Your task to perform on an android device: delete the emails in spam in the gmail app Image 0: 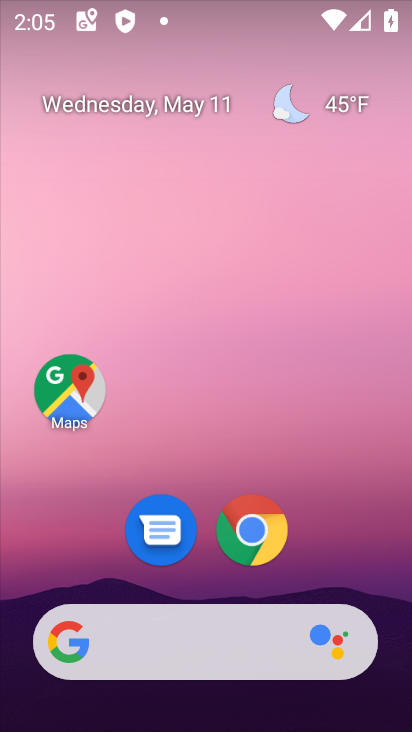
Step 0: drag from (333, 702) to (223, 307)
Your task to perform on an android device: delete the emails in spam in the gmail app Image 1: 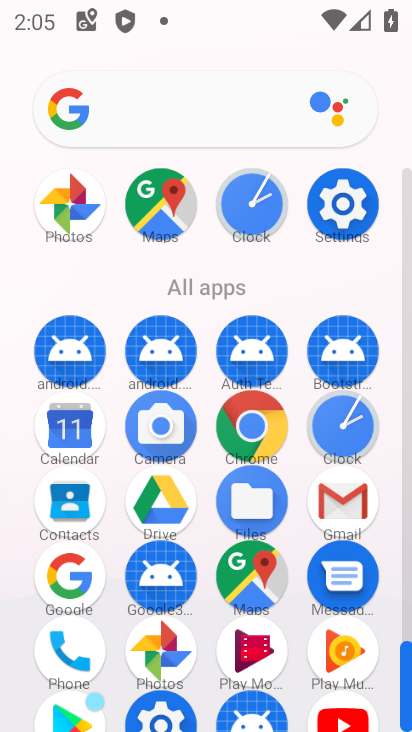
Step 1: click (355, 469)
Your task to perform on an android device: delete the emails in spam in the gmail app Image 2: 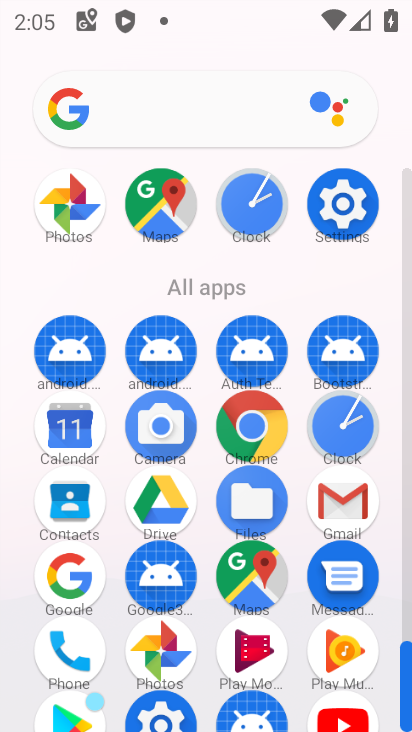
Step 2: click (351, 495)
Your task to perform on an android device: delete the emails in spam in the gmail app Image 3: 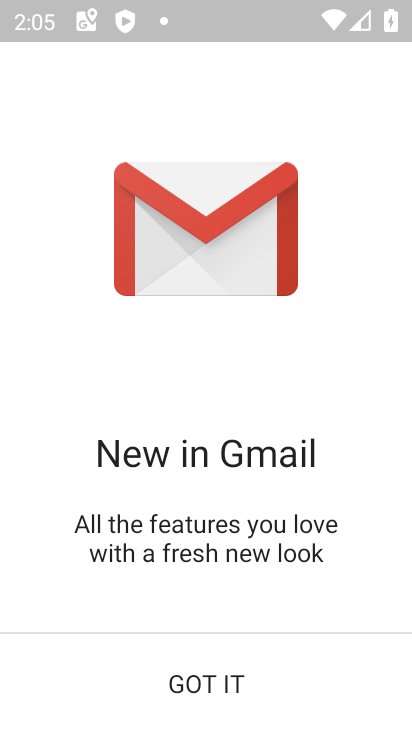
Step 3: click (207, 677)
Your task to perform on an android device: delete the emails in spam in the gmail app Image 4: 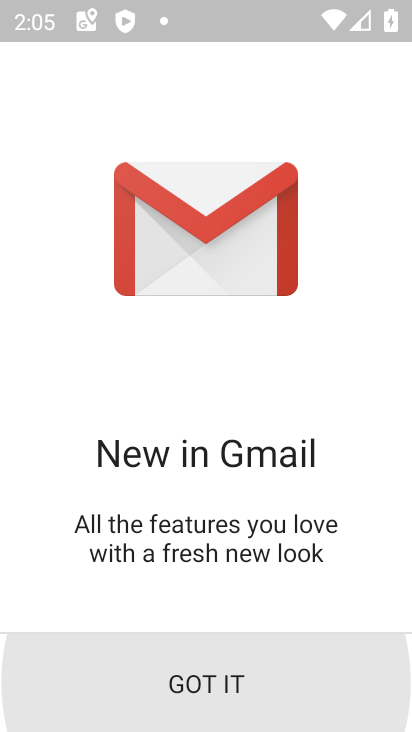
Step 4: click (207, 677)
Your task to perform on an android device: delete the emails in spam in the gmail app Image 5: 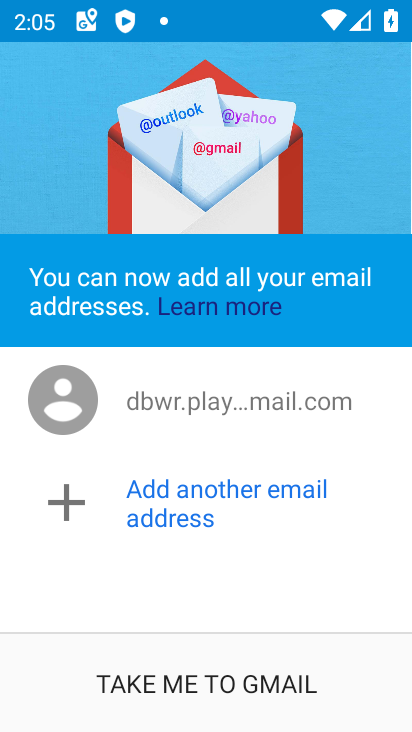
Step 5: click (217, 675)
Your task to perform on an android device: delete the emails in spam in the gmail app Image 6: 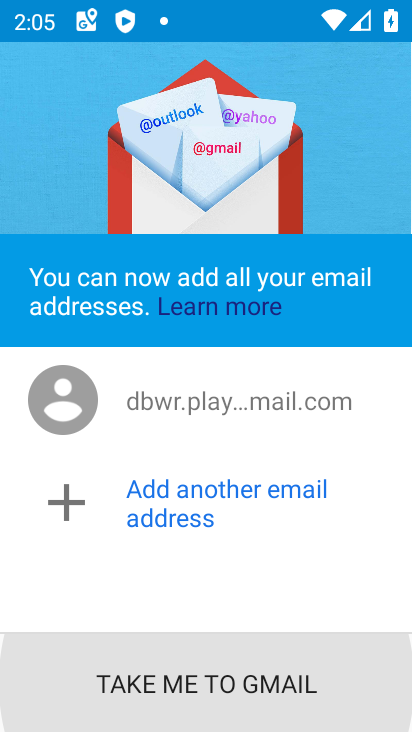
Step 6: click (214, 672)
Your task to perform on an android device: delete the emails in spam in the gmail app Image 7: 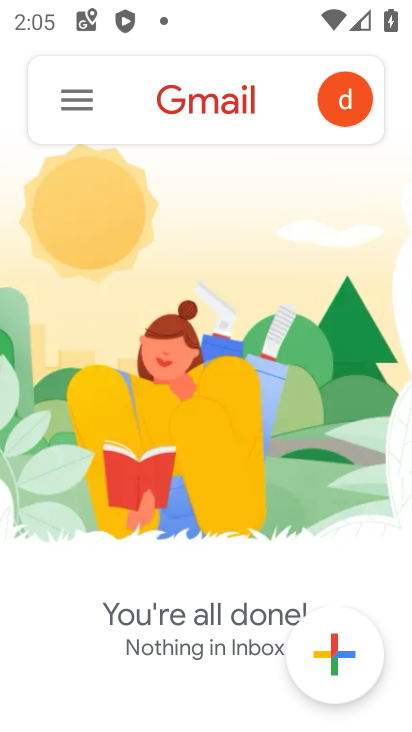
Step 7: click (78, 98)
Your task to perform on an android device: delete the emails in spam in the gmail app Image 8: 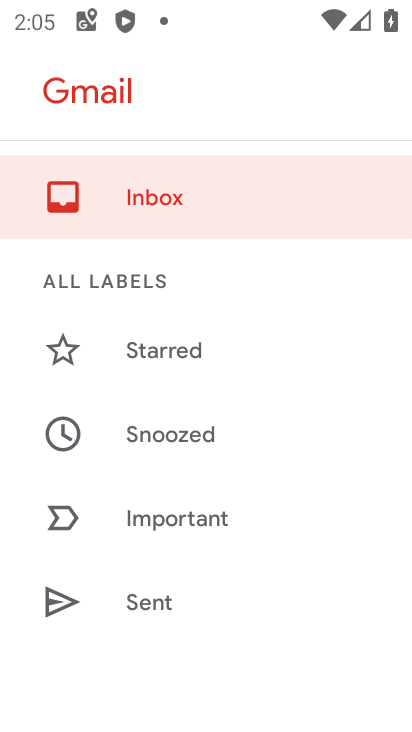
Step 8: drag from (169, 541) to (186, 301)
Your task to perform on an android device: delete the emails in spam in the gmail app Image 9: 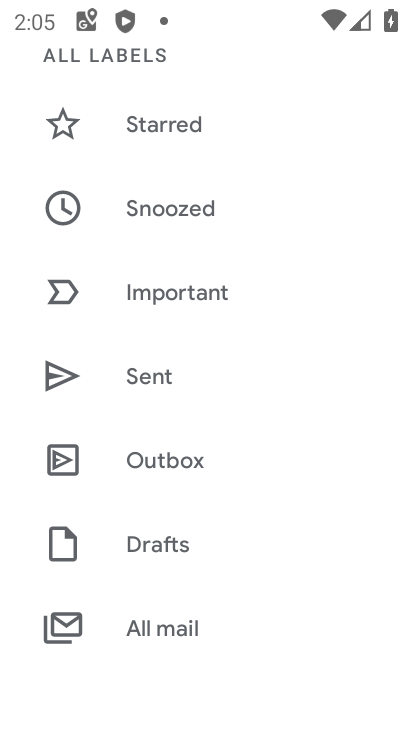
Step 9: drag from (222, 569) to (208, 241)
Your task to perform on an android device: delete the emails in spam in the gmail app Image 10: 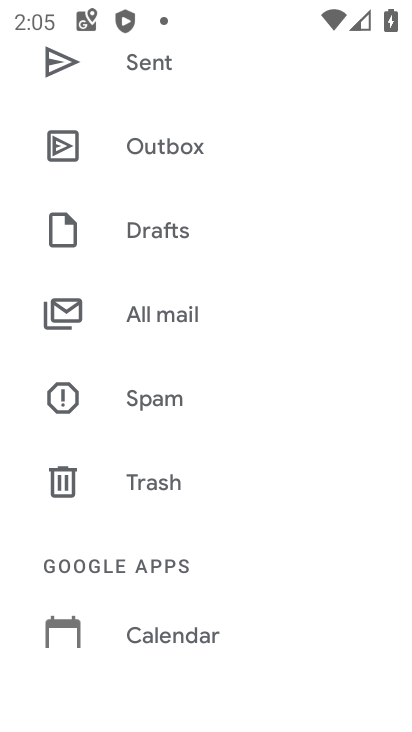
Step 10: click (166, 404)
Your task to perform on an android device: delete the emails in spam in the gmail app Image 11: 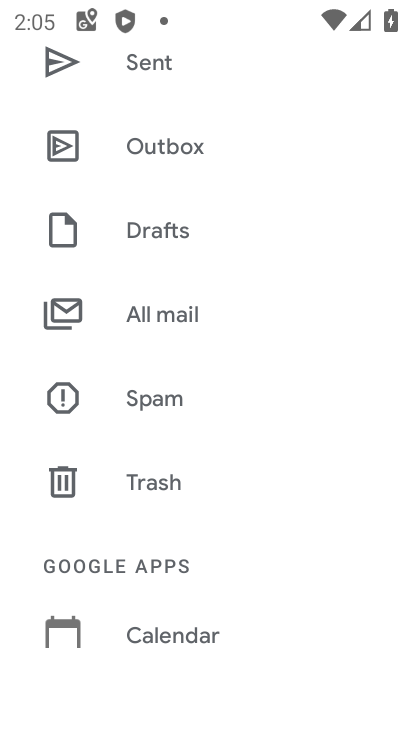
Step 11: click (165, 404)
Your task to perform on an android device: delete the emails in spam in the gmail app Image 12: 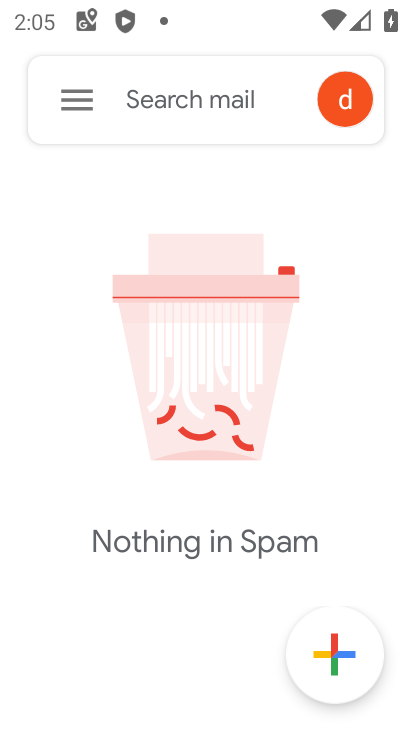
Step 12: task complete